Your task to perform on an android device: Open settings Image 0: 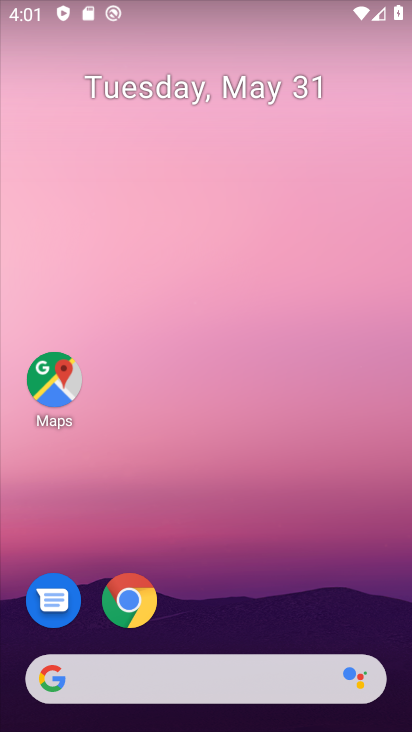
Step 0: drag from (266, 610) to (215, 52)
Your task to perform on an android device: Open settings Image 1: 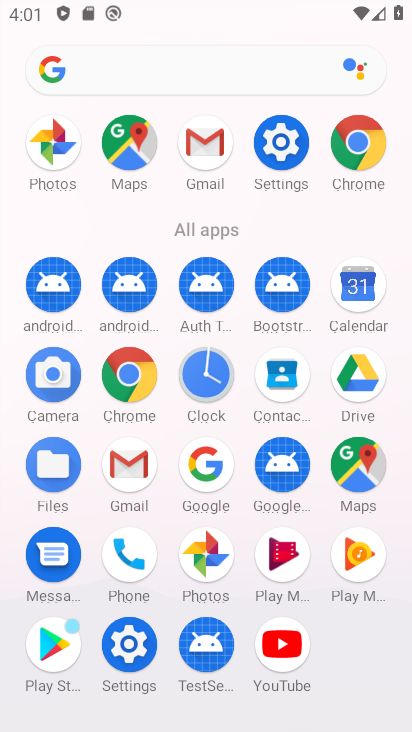
Step 1: click (283, 143)
Your task to perform on an android device: Open settings Image 2: 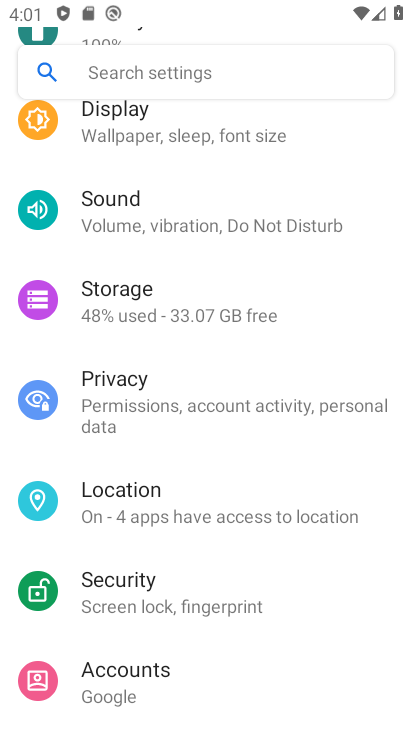
Step 2: task complete